Your task to perform on an android device: What's the weather going to be this weekend? Image 0: 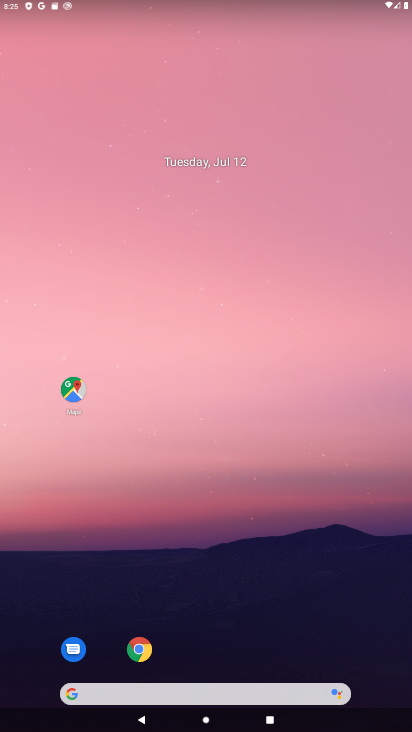
Step 0: drag from (227, 644) to (317, 191)
Your task to perform on an android device: What's the weather going to be this weekend? Image 1: 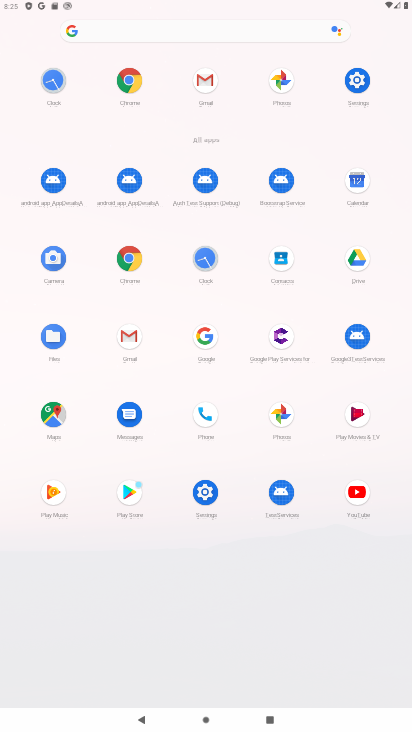
Step 1: click (180, 35)
Your task to perform on an android device: What's the weather going to be this weekend? Image 2: 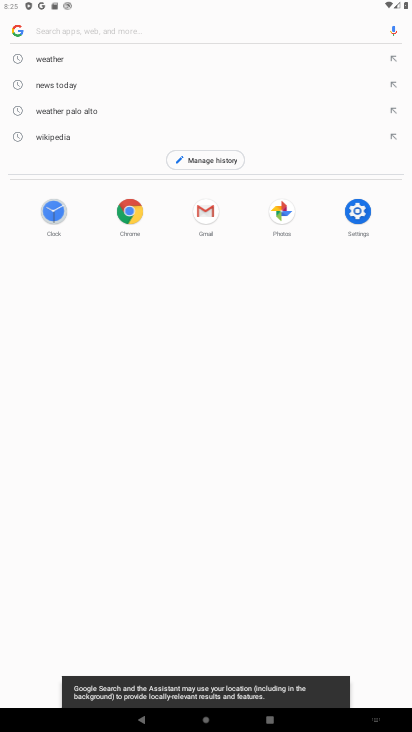
Step 2: click (128, 53)
Your task to perform on an android device: What's the weather going to be this weekend? Image 3: 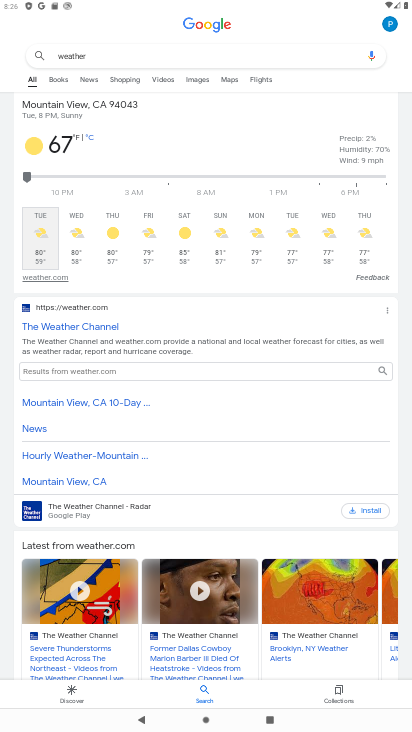
Step 3: task complete